Your task to perform on an android device: turn off sleep mode Image 0: 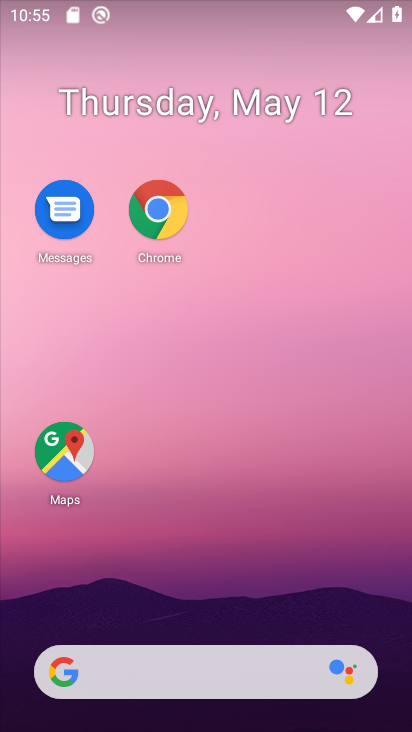
Step 0: drag from (228, 569) to (318, 0)
Your task to perform on an android device: turn off sleep mode Image 1: 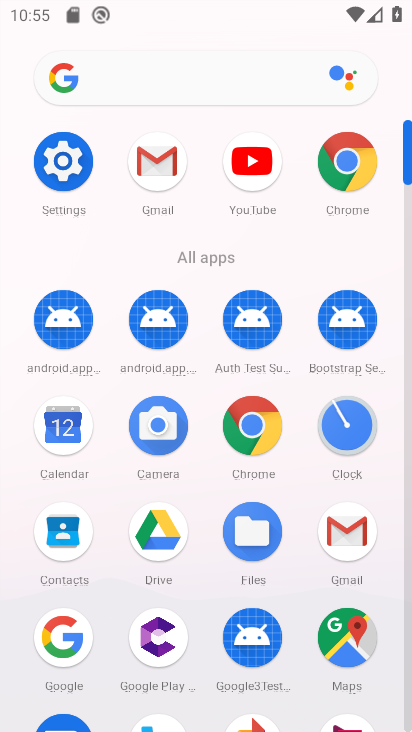
Step 1: click (63, 210)
Your task to perform on an android device: turn off sleep mode Image 2: 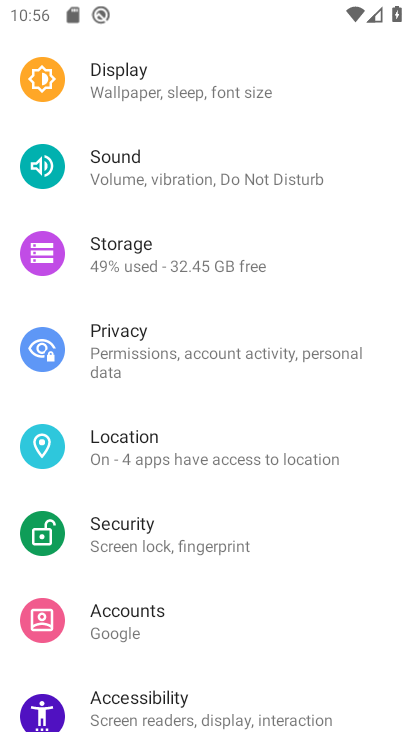
Step 2: task complete